Your task to perform on an android device: Go to internet settings Image 0: 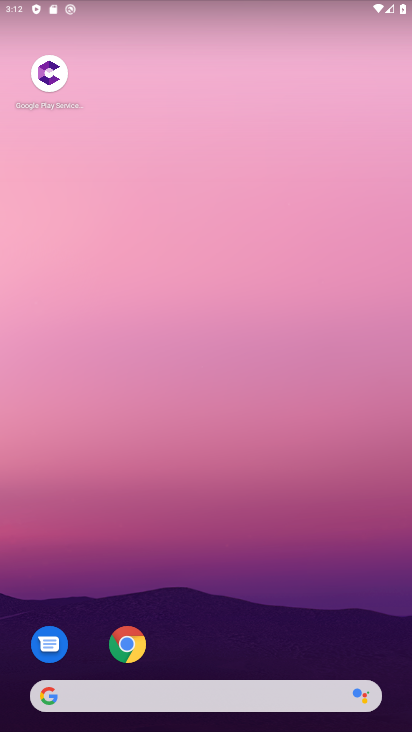
Step 0: drag from (211, 680) to (211, 220)
Your task to perform on an android device: Go to internet settings Image 1: 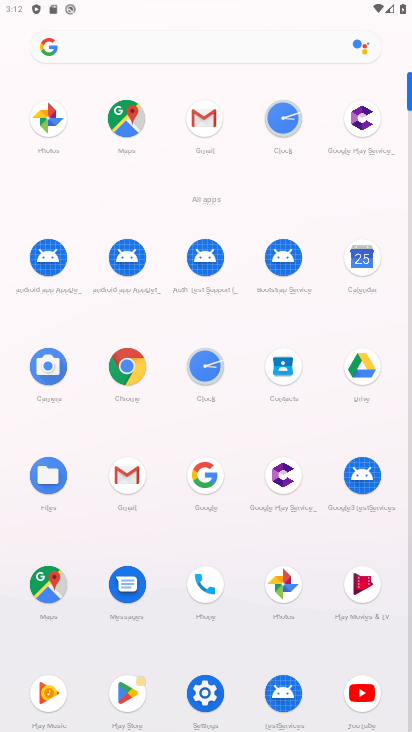
Step 1: click (195, 690)
Your task to perform on an android device: Go to internet settings Image 2: 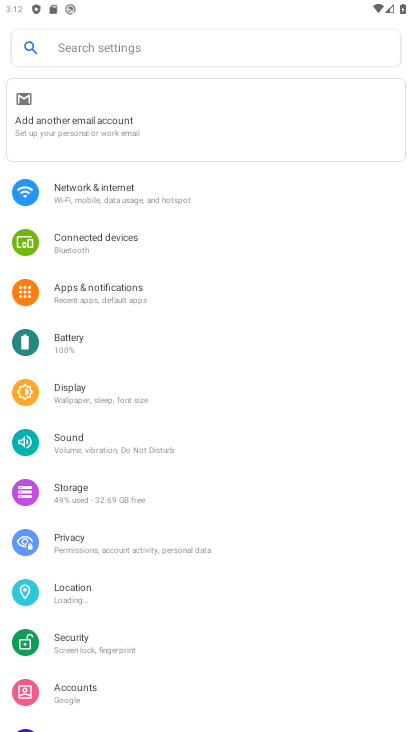
Step 2: click (133, 190)
Your task to perform on an android device: Go to internet settings Image 3: 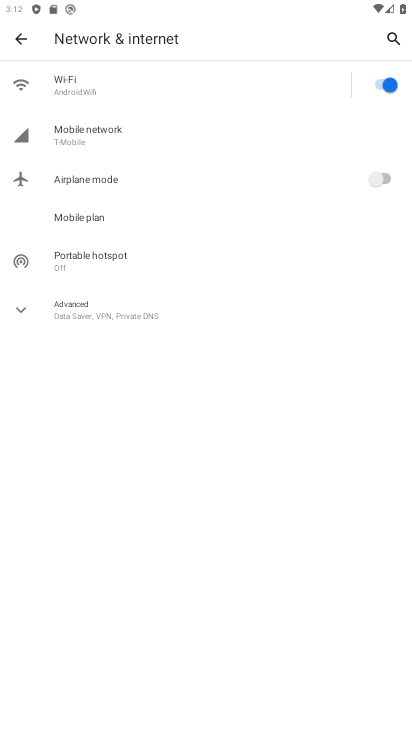
Step 3: click (97, 137)
Your task to perform on an android device: Go to internet settings Image 4: 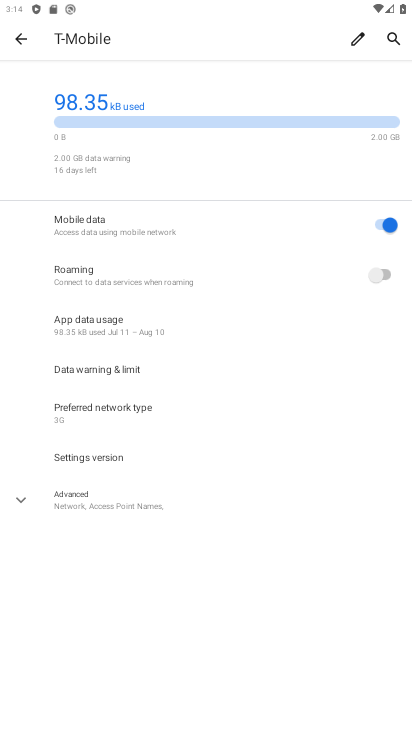
Step 4: click (95, 500)
Your task to perform on an android device: Go to internet settings Image 5: 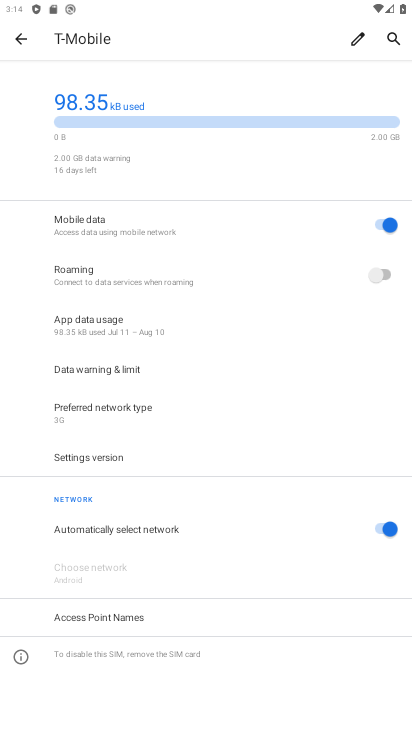
Step 5: task complete